Your task to perform on an android device: Go to privacy settings Image 0: 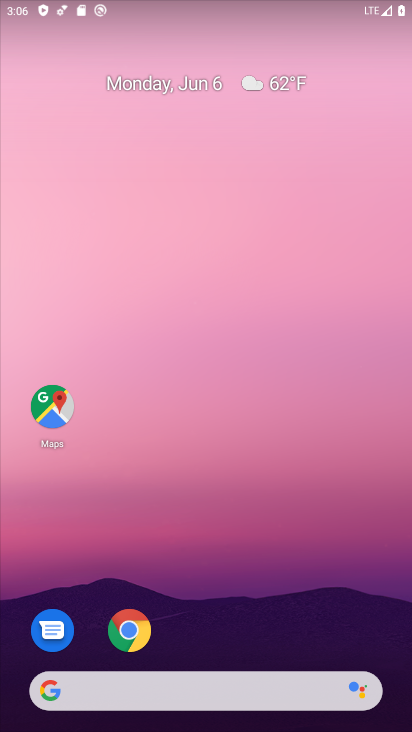
Step 0: press home button
Your task to perform on an android device: Go to privacy settings Image 1: 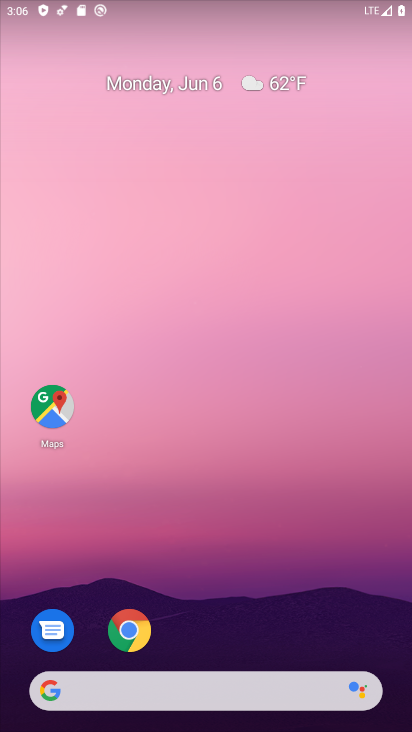
Step 1: drag from (281, 494) to (34, 8)
Your task to perform on an android device: Go to privacy settings Image 2: 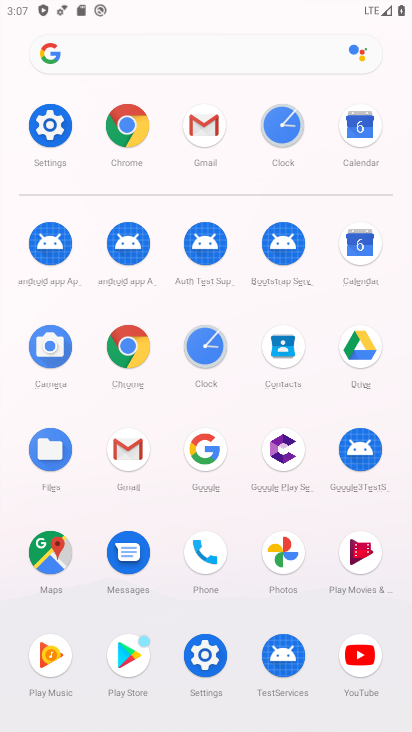
Step 2: click (53, 123)
Your task to perform on an android device: Go to privacy settings Image 3: 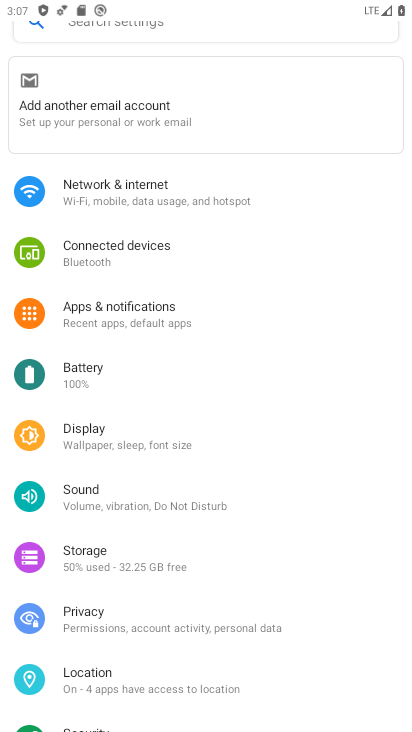
Step 3: click (59, 625)
Your task to perform on an android device: Go to privacy settings Image 4: 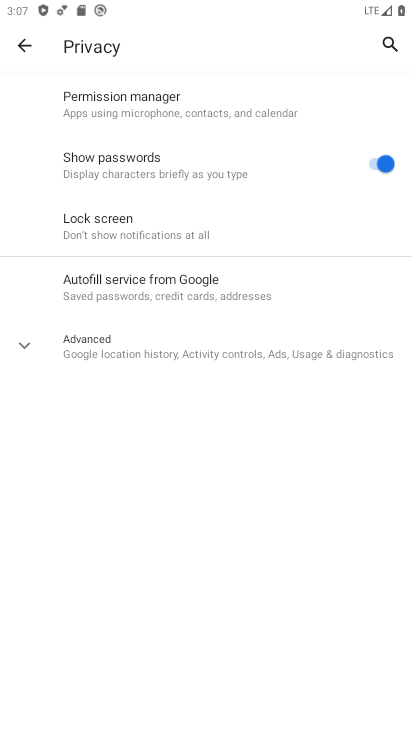
Step 4: task complete